Your task to perform on an android device: Open accessibility settings Image 0: 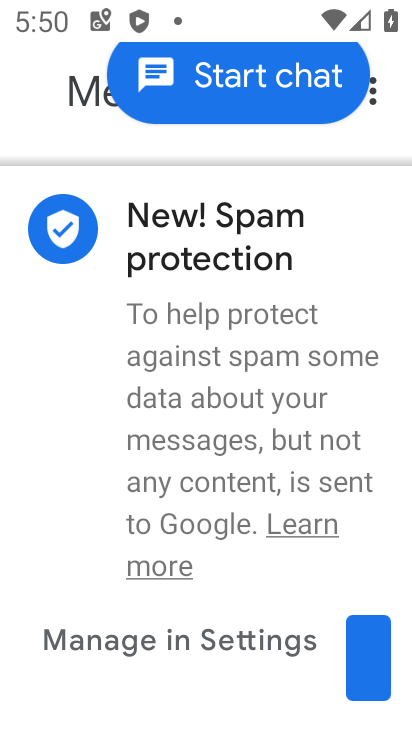
Step 0: press home button
Your task to perform on an android device: Open accessibility settings Image 1: 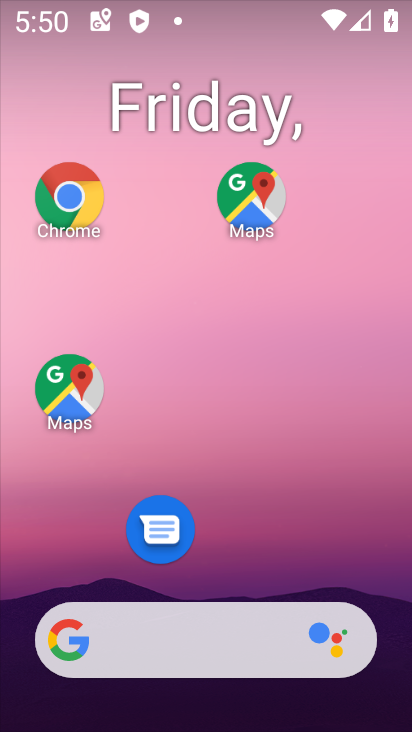
Step 1: drag from (235, 465) to (396, 129)
Your task to perform on an android device: Open accessibility settings Image 2: 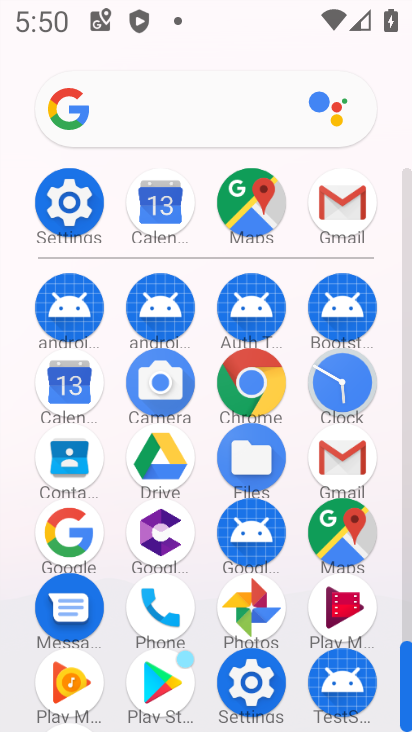
Step 2: click (76, 201)
Your task to perform on an android device: Open accessibility settings Image 3: 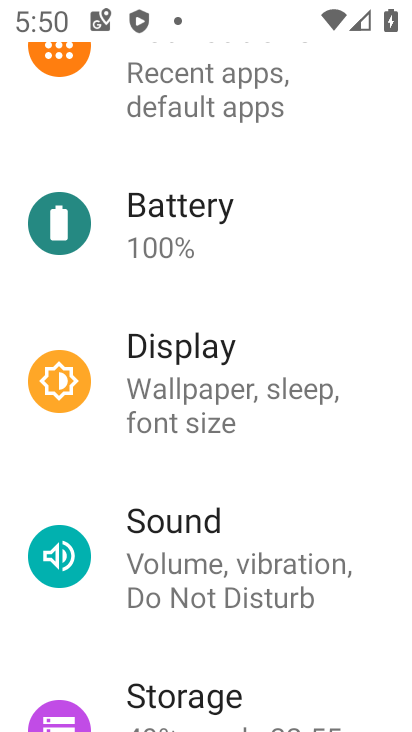
Step 3: drag from (196, 624) to (230, 349)
Your task to perform on an android device: Open accessibility settings Image 4: 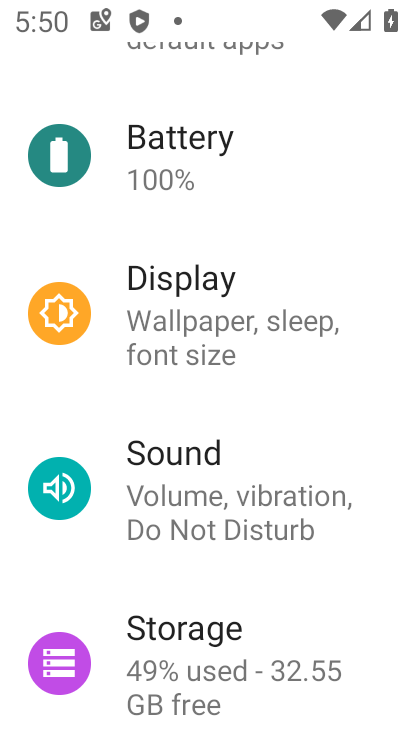
Step 4: drag from (227, 625) to (228, 339)
Your task to perform on an android device: Open accessibility settings Image 5: 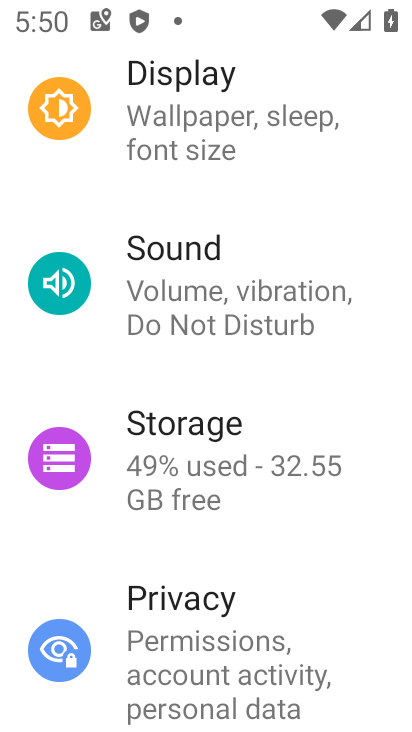
Step 5: drag from (213, 531) to (213, 326)
Your task to perform on an android device: Open accessibility settings Image 6: 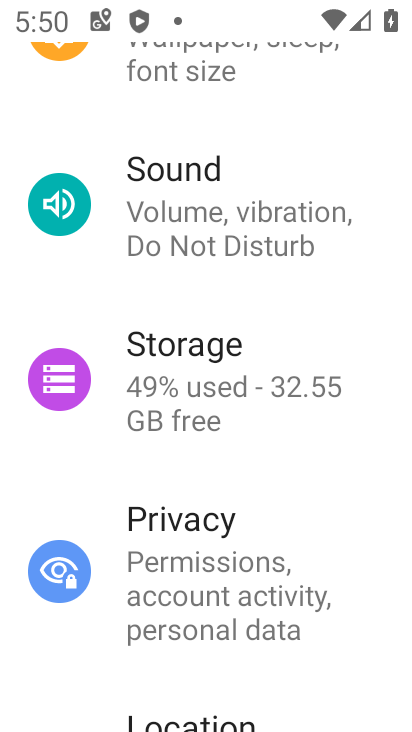
Step 6: drag from (169, 538) to (169, 291)
Your task to perform on an android device: Open accessibility settings Image 7: 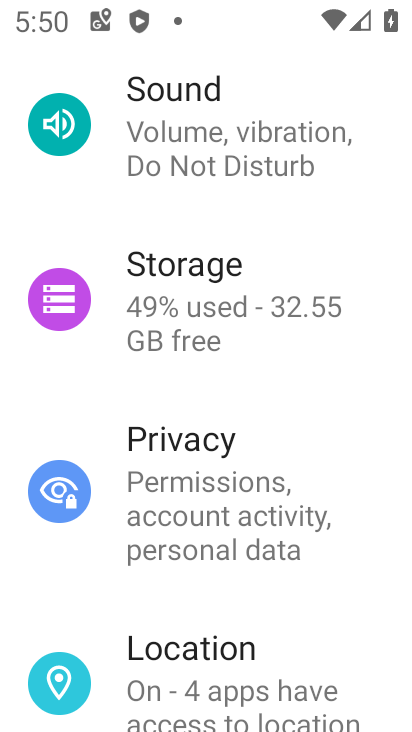
Step 7: drag from (208, 669) to (241, 355)
Your task to perform on an android device: Open accessibility settings Image 8: 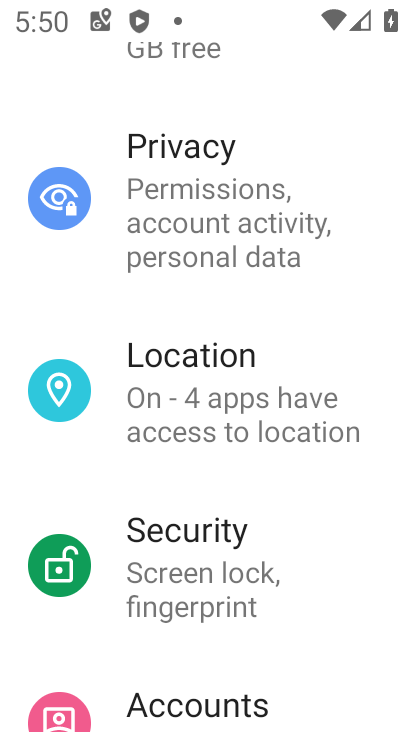
Step 8: drag from (182, 602) to (184, 421)
Your task to perform on an android device: Open accessibility settings Image 9: 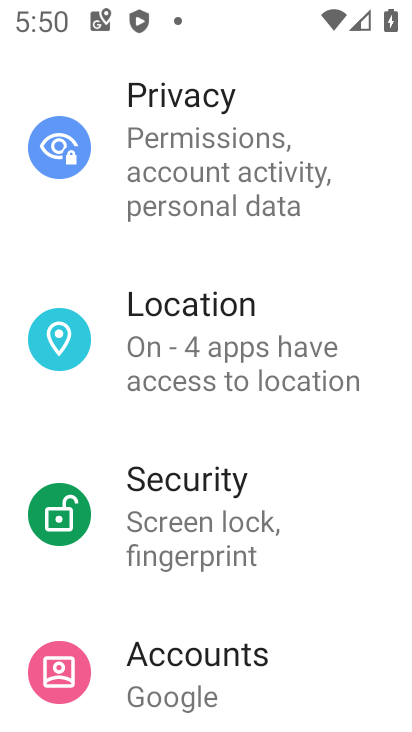
Step 9: drag from (209, 646) to (250, 373)
Your task to perform on an android device: Open accessibility settings Image 10: 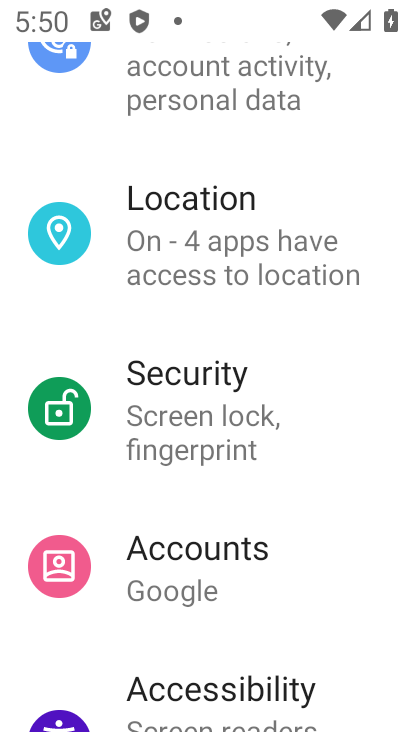
Step 10: click (213, 701)
Your task to perform on an android device: Open accessibility settings Image 11: 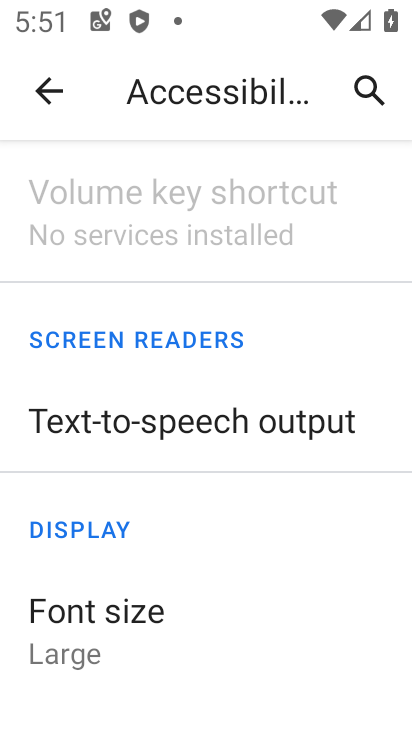
Step 11: task complete